Your task to perform on an android device: change the upload size in google photos Image 0: 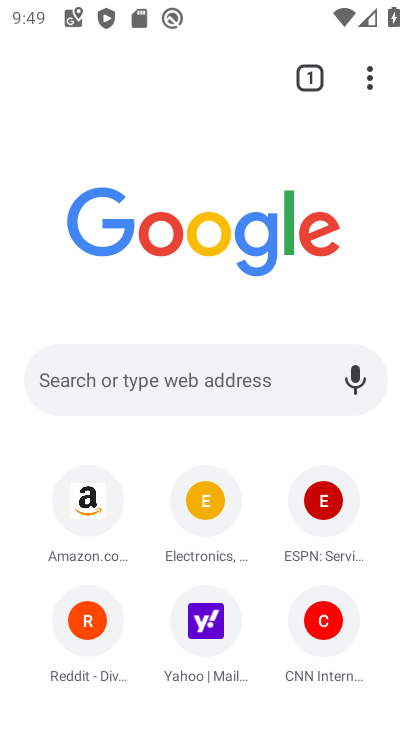
Step 0: press home button
Your task to perform on an android device: change the upload size in google photos Image 1: 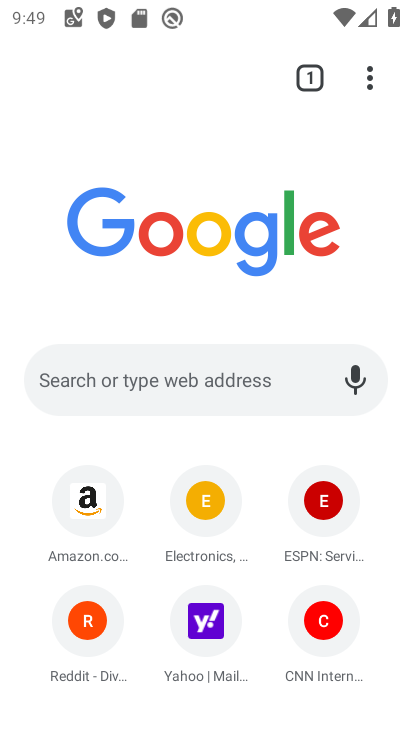
Step 1: press home button
Your task to perform on an android device: change the upload size in google photos Image 2: 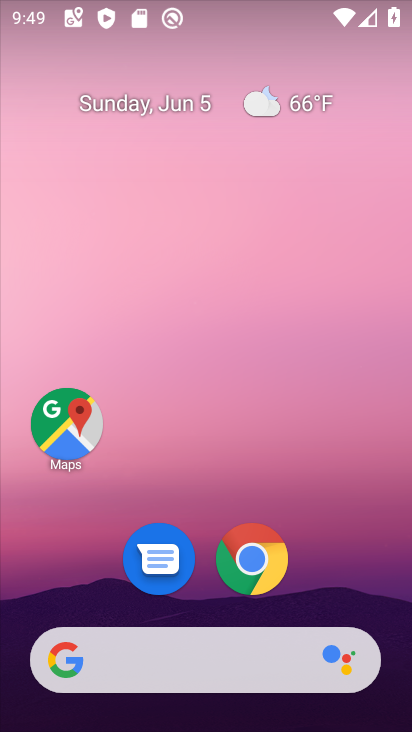
Step 2: drag from (215, 597) to (221, 52)
Your task to perform on an android device: change the upload size in google photos Image 3: 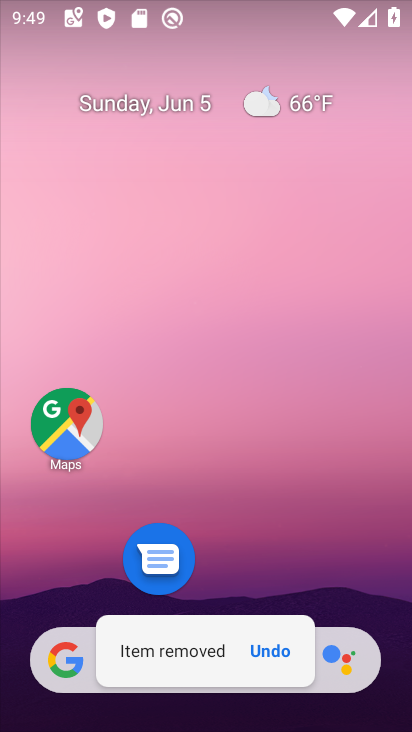
Step 3: click (270, 646)
Your task to perform on an android device: change the upload size in google photos Image 4: 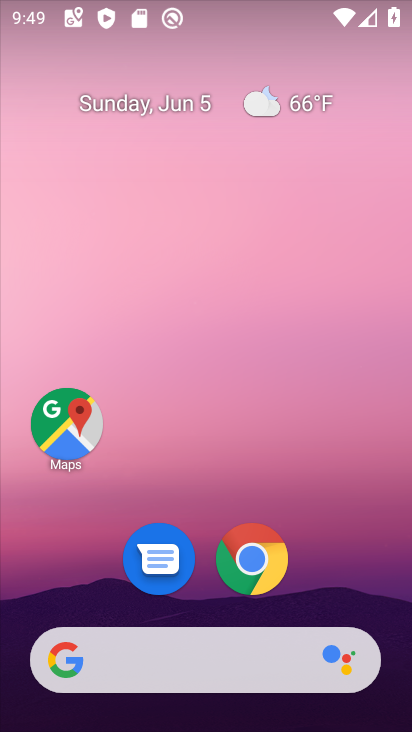
Step 4: drag from (319, 578) to (344, 42)
Your task to perform on an android device: change the upload size in google photos Image 5: 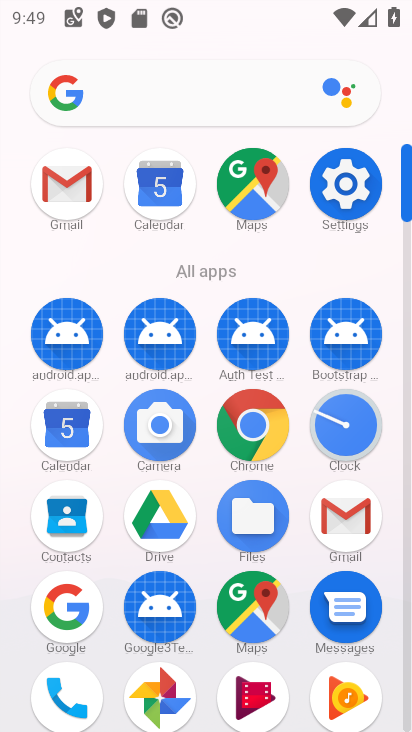
Step 5: click (161, 688)
Your task to perform on an android device: change the upload size in google photos Image 6: 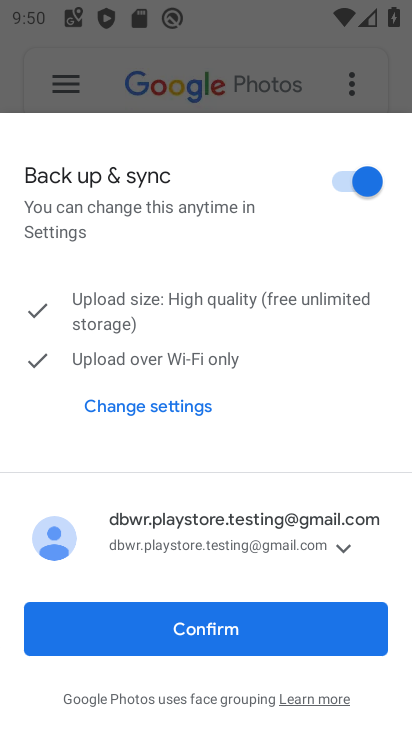
Step 6: click (208, 627)
Your task to perform on an android device: change the upload size in google photos Image 7: 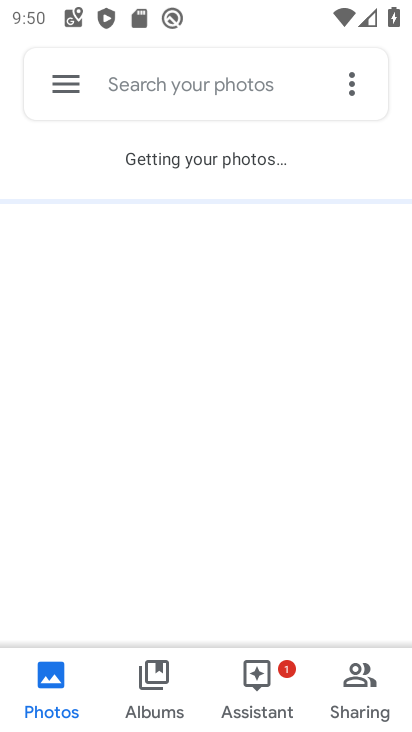
Step 7: click (70, 81)
Your task to perform on an android device: change the upload size in google photos Image 8: 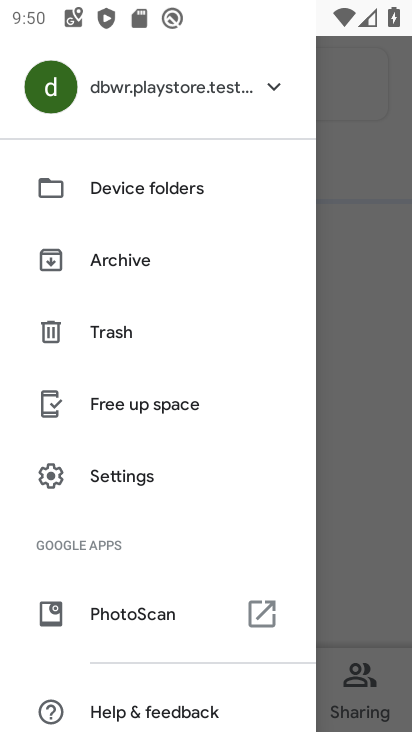
Step 8: click (164, 471)
Your task to perform on an android device: change the upload size in google photos Image 9: 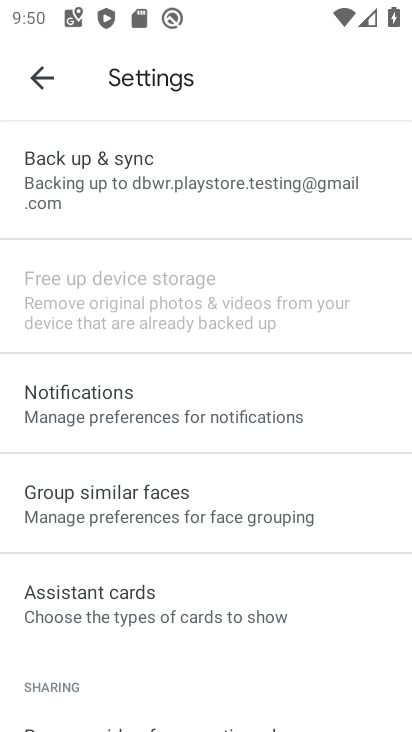
Step 9: drag from (199, 589) to (211, 363)
Your task to perform on an android device: change the upload size in google photos Image 10: 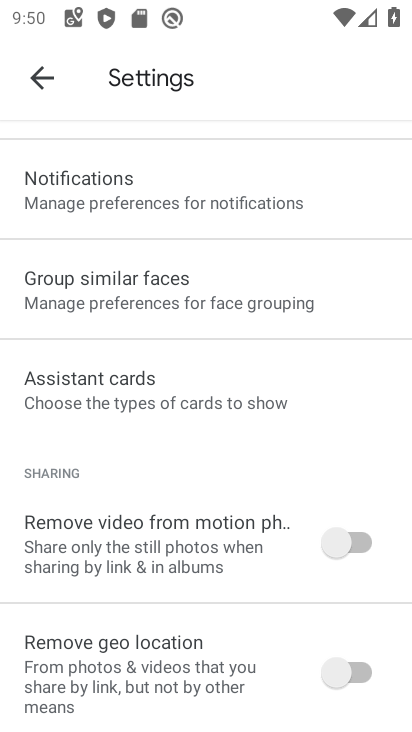
Step 10: drag from (168, 247) to (175, 668)
Your task to perform on an android device: change the upload size in google photos Image 11: 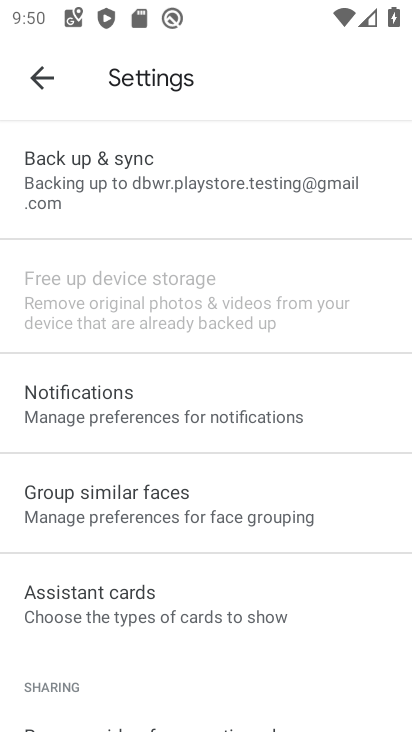
Step 11: click (158, 193)
Your task to perform on an android device: change the upload size in google photos Image 12: 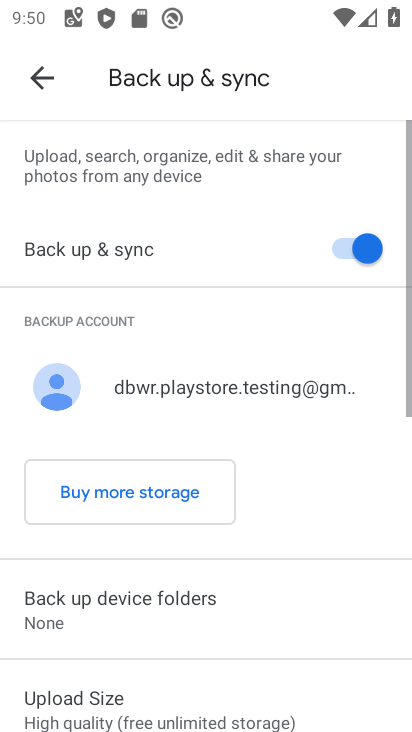
Step 12: drag from (197, 635) to (215, 283)
Your task to perform on an android device: change the upload size in google photos Image 13: 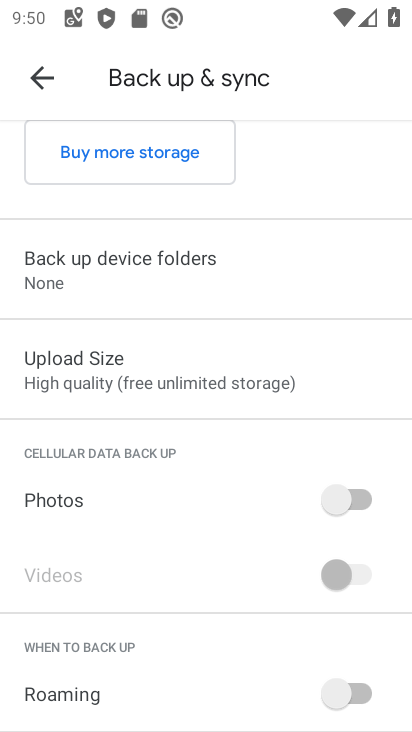
Step 13: click (155, 368)
Your task to perform on an android device: change the upload size in google photos Image 14: 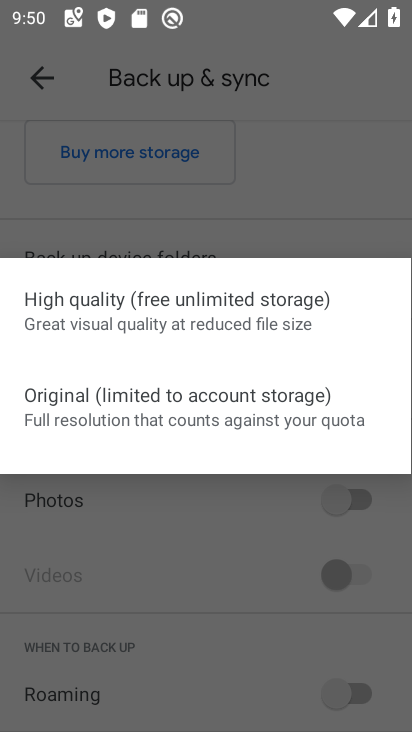
Step 14: click (188, 412)
Your task to perform on an android device: change the upload size in google photos Image 15: 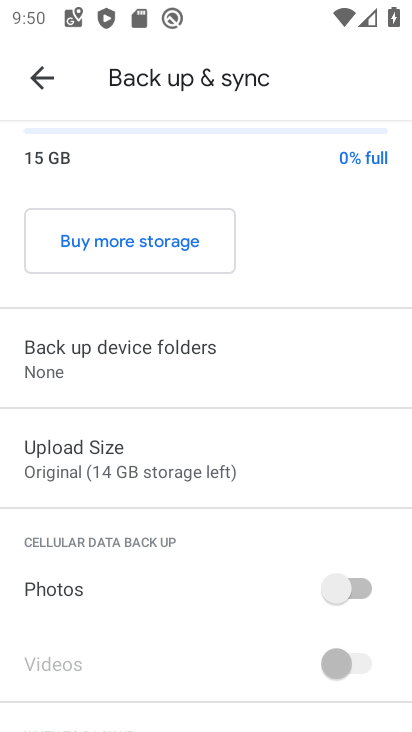
Step 15: task complete